Your task to perform on an android device: Show me recent news Image 0: 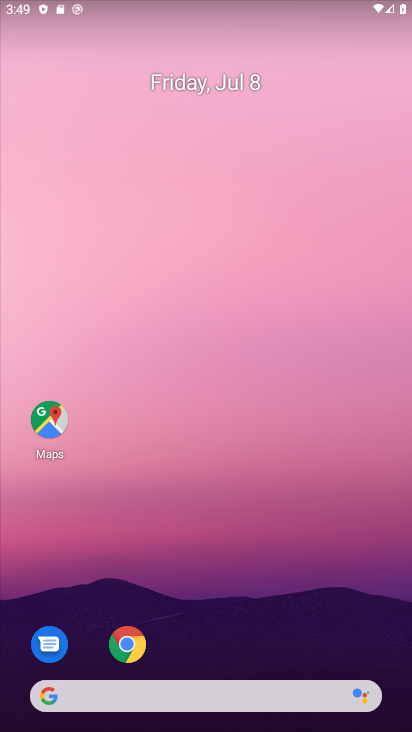
Step 0: click (99, 698)
Your task to perform on an android device: Show me recent news Image 1: 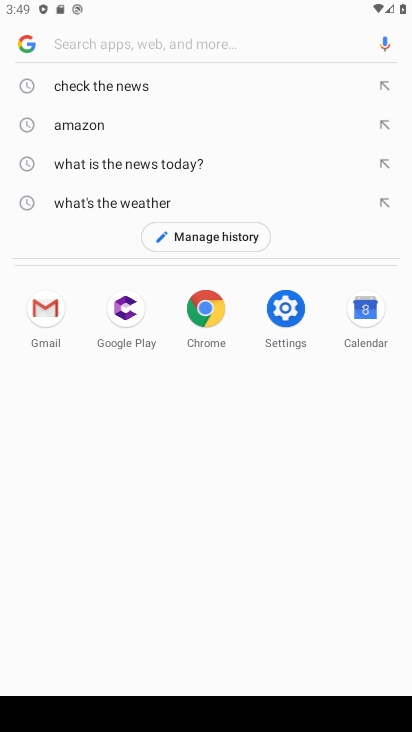
Step 1: type "recent news"
Your task to perform on an android device: Show me recent news Image 2: 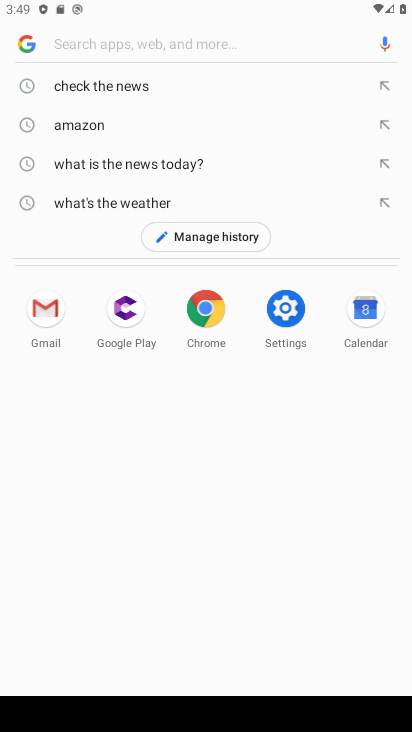
Step 2: click (184, 42)
Your task to perform on an android device: Show me recent news Image 3: 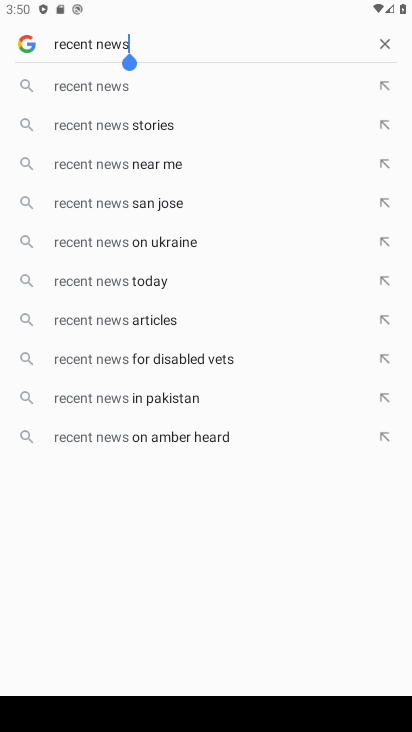
Step 3: click (93, 81)
Your task to perform on an android device: Show me recent news Image 4: 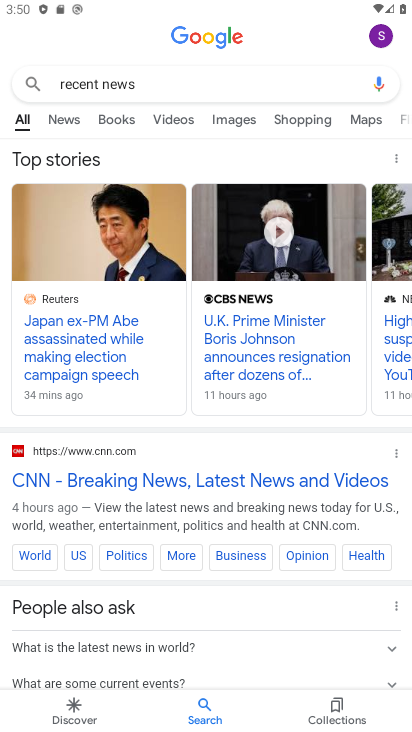
Step 4: task complete